Your task to perform on an android device: turn on location history Image 0: 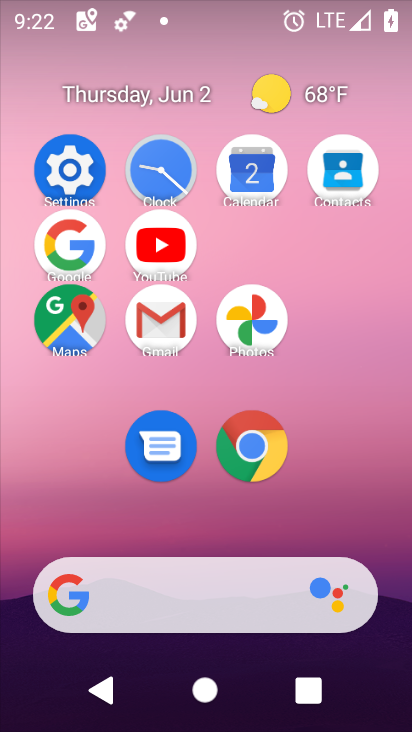
Step 0: click (63, 188)
Your task to perform on an android device: turn on location history Image 1: 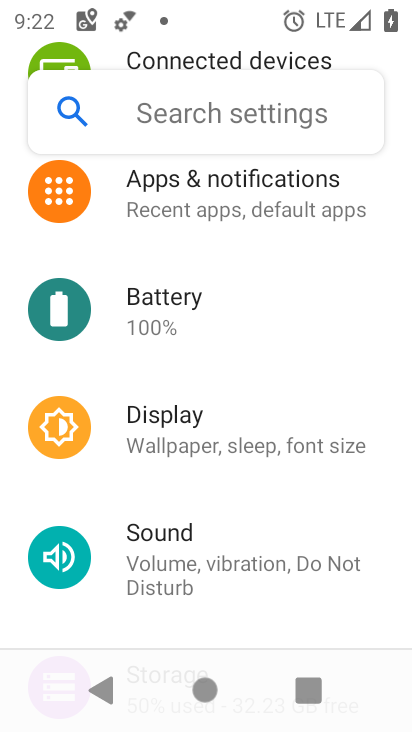
Step 1: drag from (230, 585) to (250, 132)
Your task to perform on an android device: turn on location history Image 2: 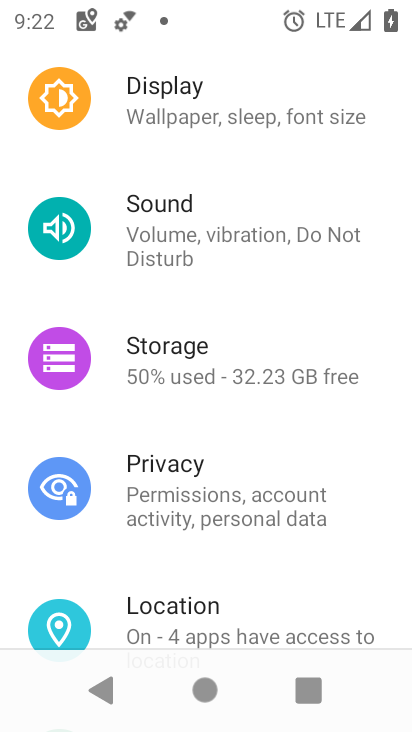
Step 2: drag from (266, 576) to (306, 143)
Your task to perform on an android device: turn on location history Image 3: 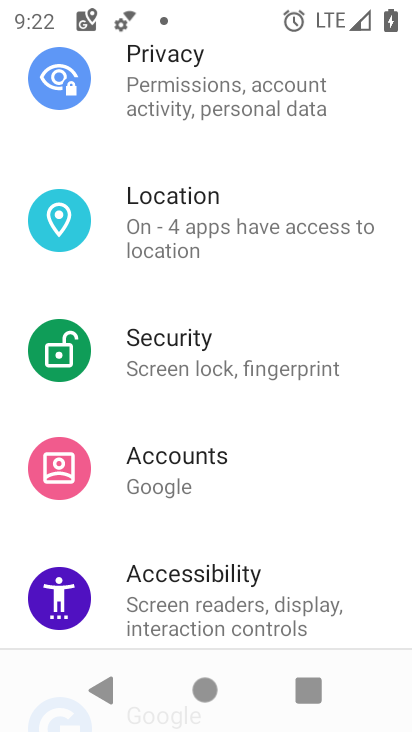
Step 3: click (295, 195)
Your task to perform on an android device: turn on location history Image 4: 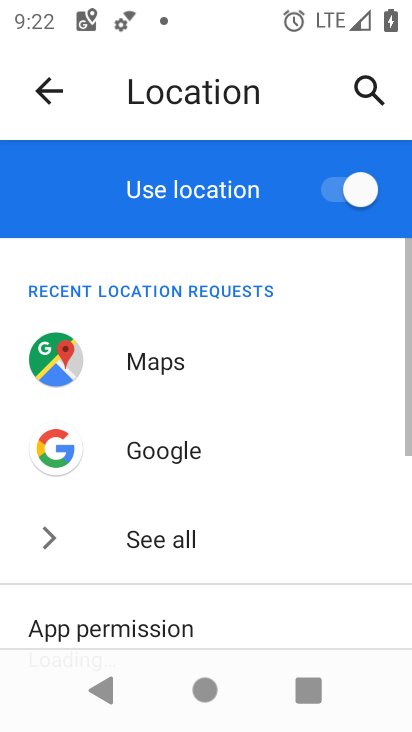
Step 4: drag from (235, 648) to (334, 139)
Your task to perform on an android device: turn on location history Image 5: 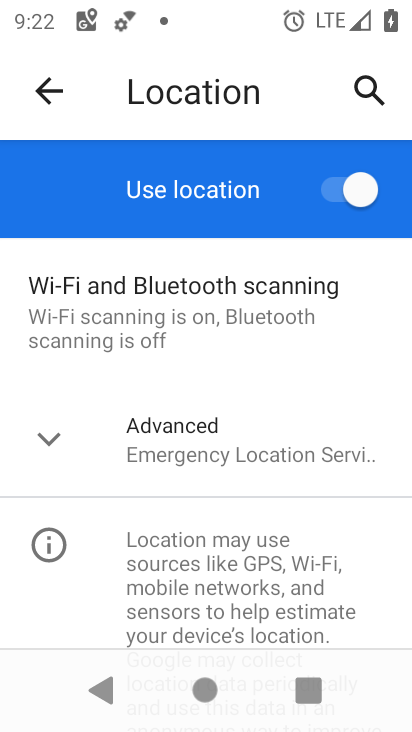
Step 5: click (284, 459)
Your task to perform on an android device: turn on location history Image 6: 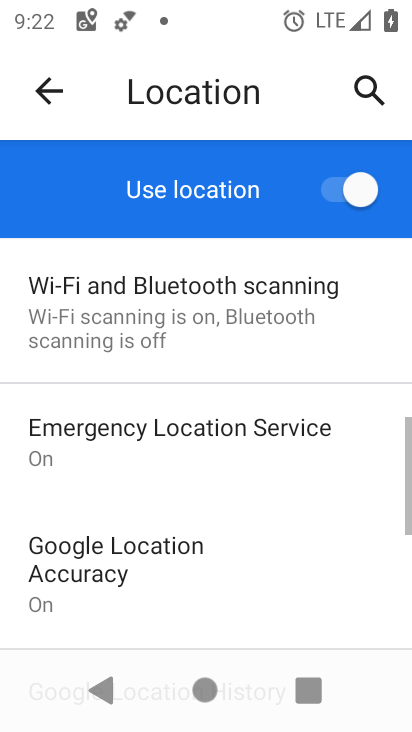
Step 6: drag from (242, 579) to (273, 244)
Your task to perform on an android device: turn on location history Image 7: 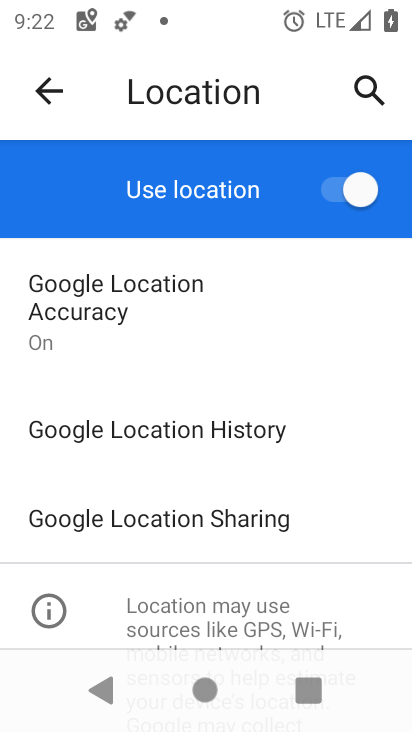
Step 7: click (284, 433)
Your task to perform on an android device: turn on location history Image 8: 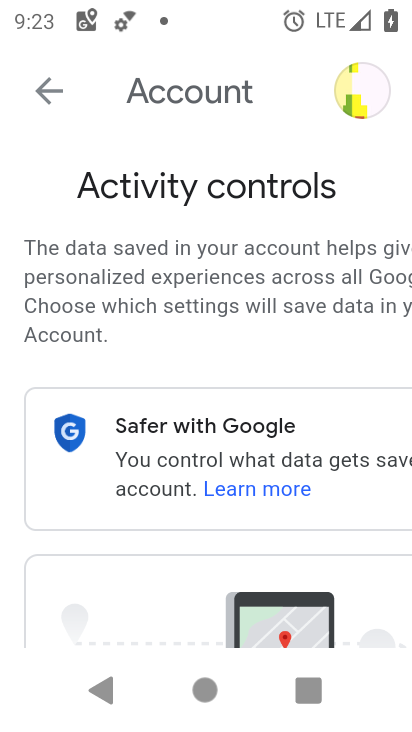
Step 8: task complete